Your task to perform on an android device: turn on javascript in the chrome app Image 0: 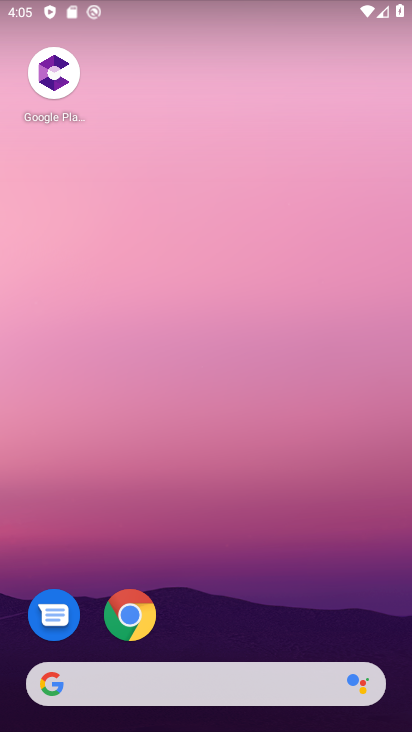
Step 0: click (131, 616)
Your task to perform on an android device: turn on javascript in the chrome app Image 1: 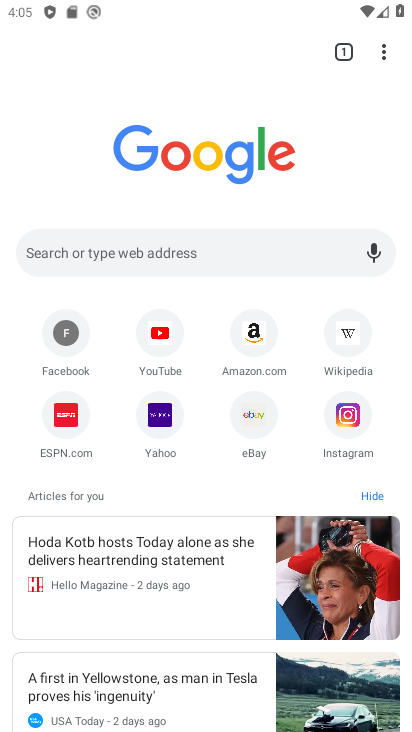
Step 1: click (385, 49)
Your task to perform on an android device: turn on javascript in the chrome app Image 2: 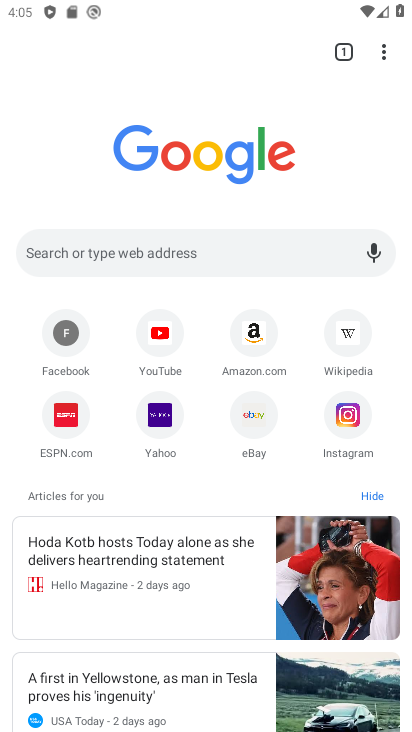
Step 2: click (384, 51)
Your task to perform on an android device: turn on javascript in the chrome app Image 3: 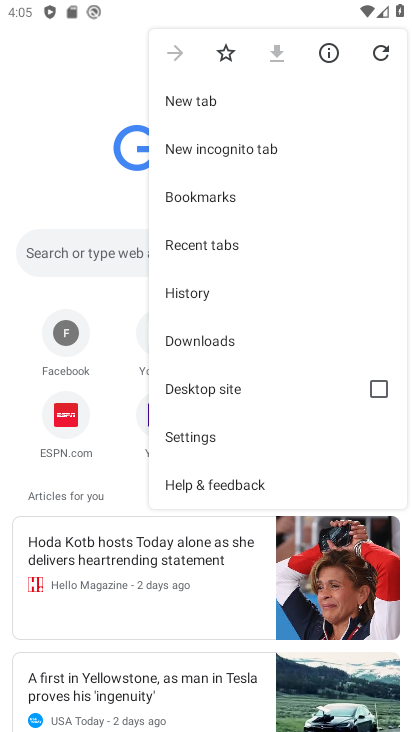
Step 3: click (220, 433)
Your task to perform on an android device: turn on javascript in the chrome app Image 4: 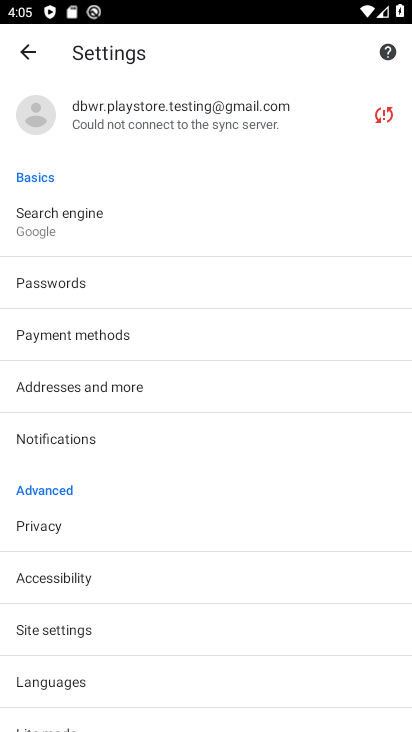
Step 4: click (125, 634)
Your task to perform on an android device: turn on javascript in the chrome app Image 5: 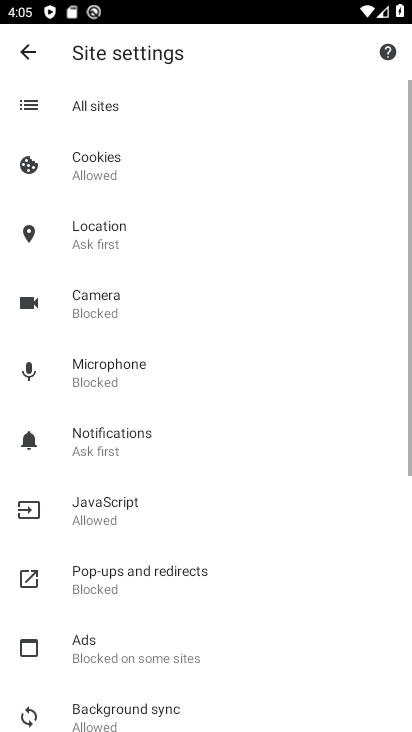
Step 5: click (168, 518)
Your task to perform on an android device: turn on javascript in the chrome app Image 6: 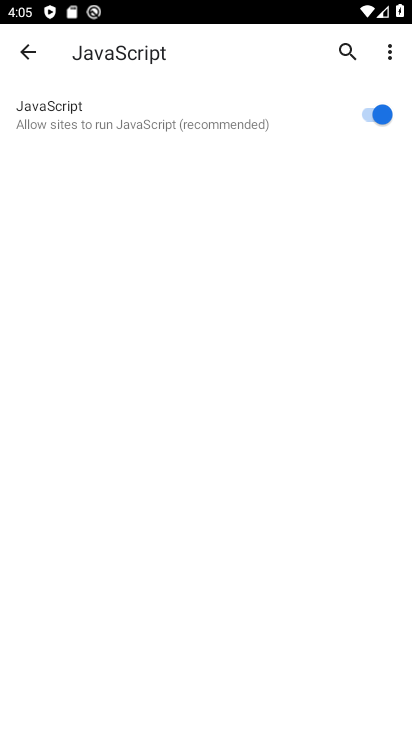
Step 6: task complete